Your task to perform on an android device: Go to Reddit.com Image 0: 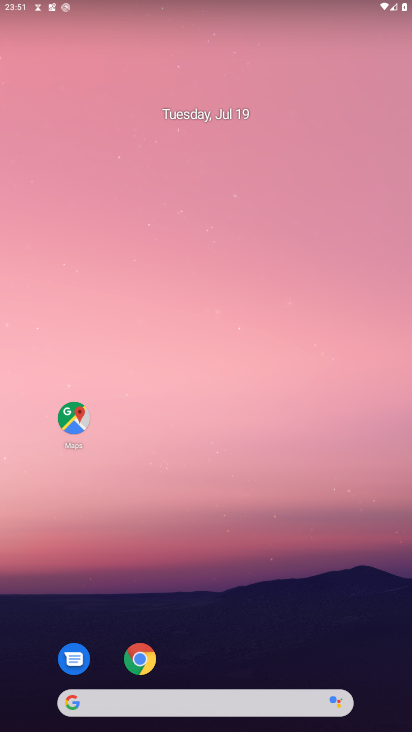
Step 0: click (147, 669)
Your task to perform on an android device: Go to Reddit.com Image 1: 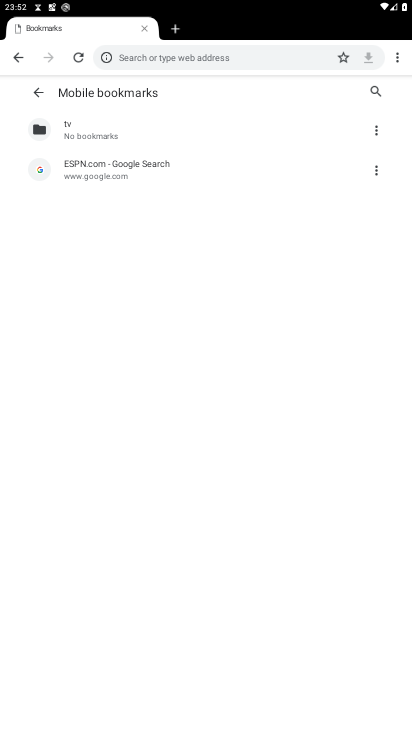
Step 1: click (176, 57)
Your task to perform on an android device: Go to Reddit.com Image 2: 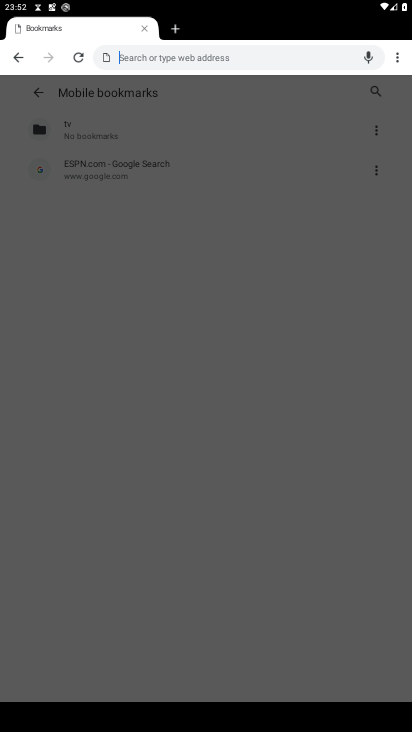
Step 2: type "reddit.com"
Your task to perform on an android device: Go to Reddit.com Image 3: 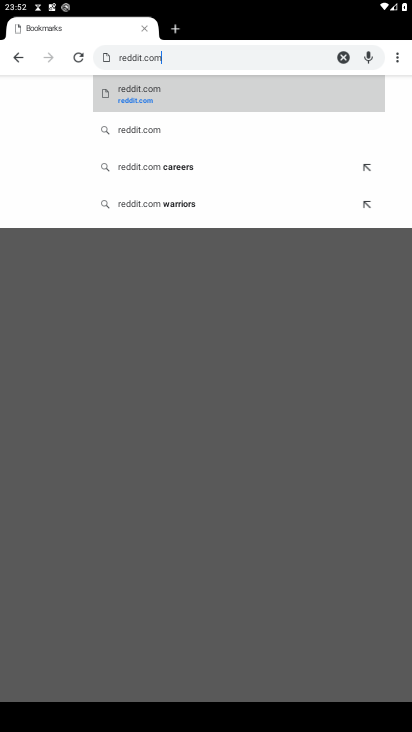
Step 3: click (167, 97)
Your task to perform on an android device: Go to Reddit.com Image 4: 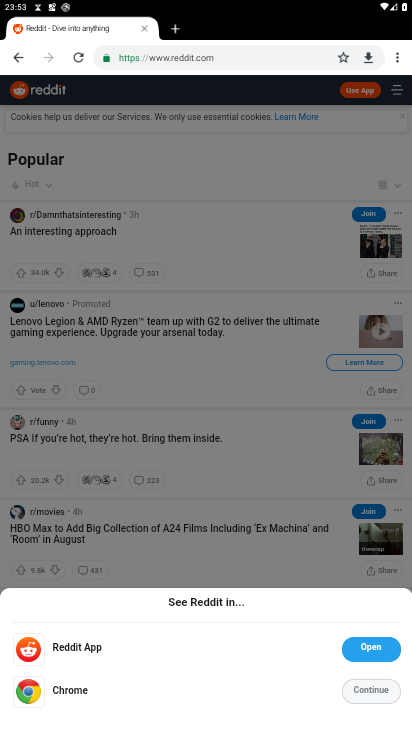
Step 4: task complete